Your task to perform on an android device: toggle data saver in the chrome app Image 0: 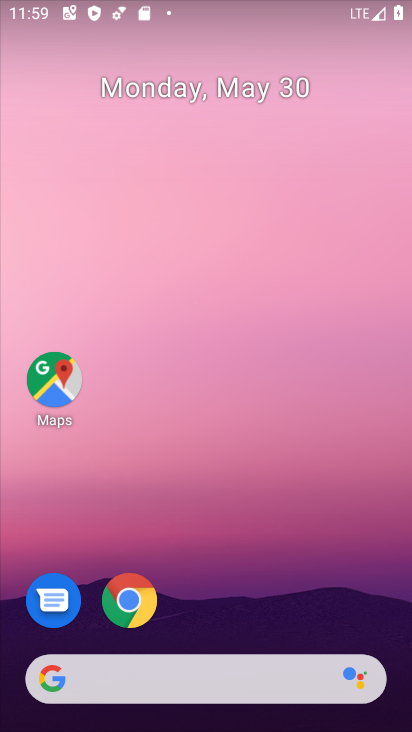
Step 0: click (130, 604)
Your task to perform on an android device: toggle data saver in the chrome app Image 1: 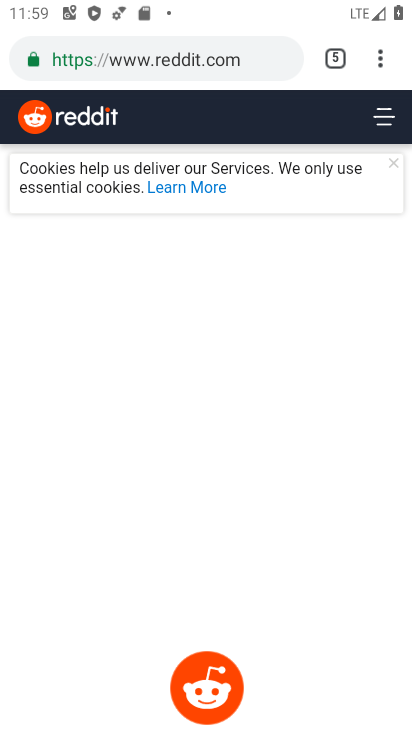
Step 1: click (380, 64)
Your task to perform on an android device: toggle data saver in the chrome app Image 2: 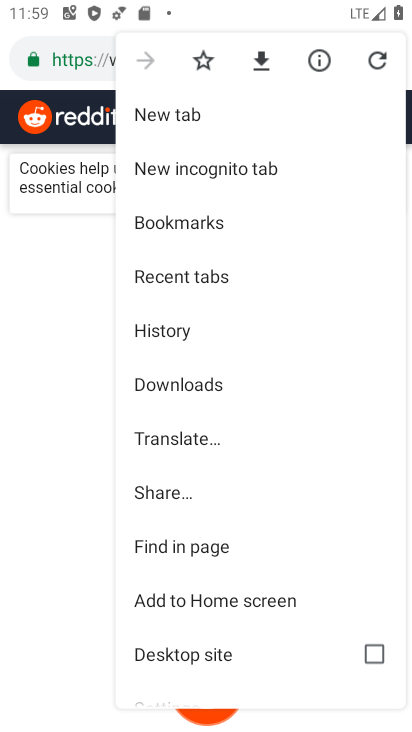
Step 2: drag from (181, 664) to (182, 283)
Your task to perform on an android device: toggle data saver in the chrome app Image 3: 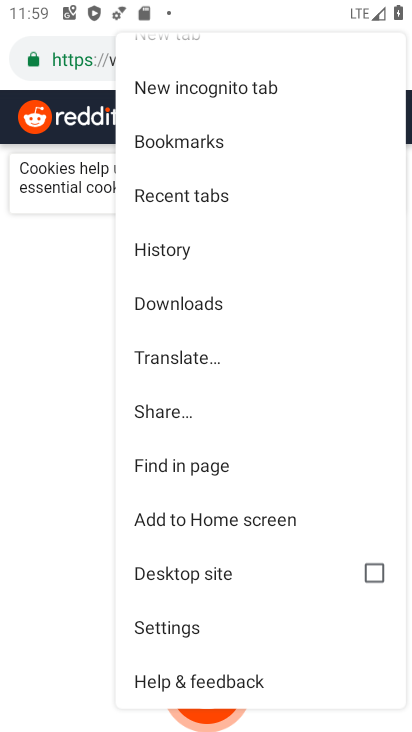
Step 3: click (159, 623)
Your task to perform on an android device: toggle data saver in the chrome app Image 4: 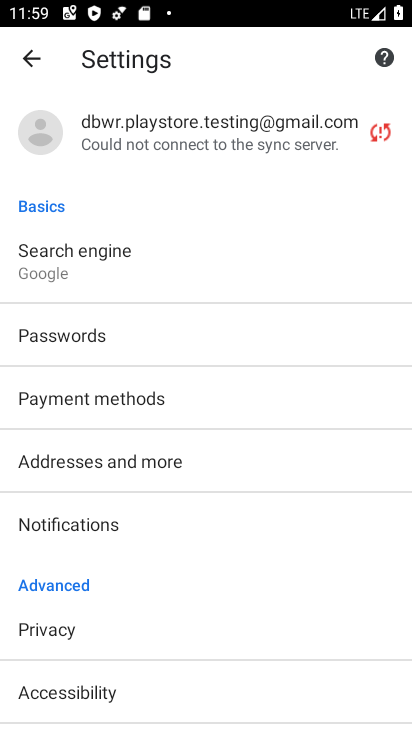
Step 4: drag from (120, 698) to (120, 260)
Your task to perform on an android device: toggle data saver in the chrome app Image 5: 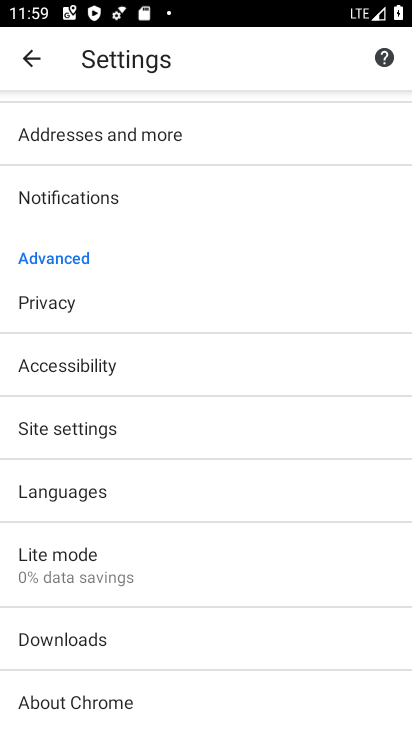
Step 5: click (66, 564)
Your task to perform on an android device: toggle data saver in the chrome app Image 6: 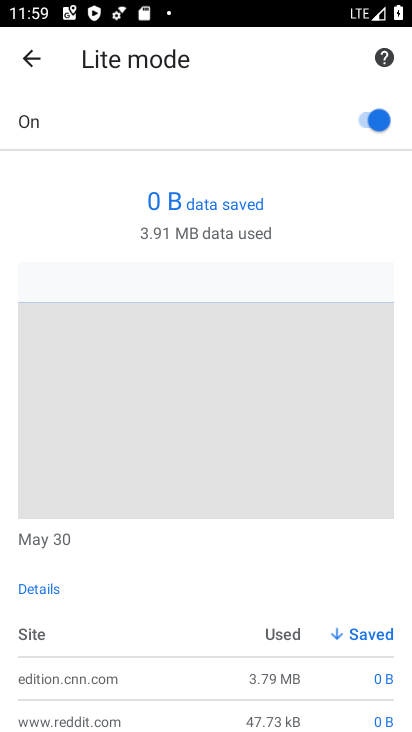
Step 6: click (367, 122)
Your task to perform on an android device: toggle data saver in the chrome app Image 7: 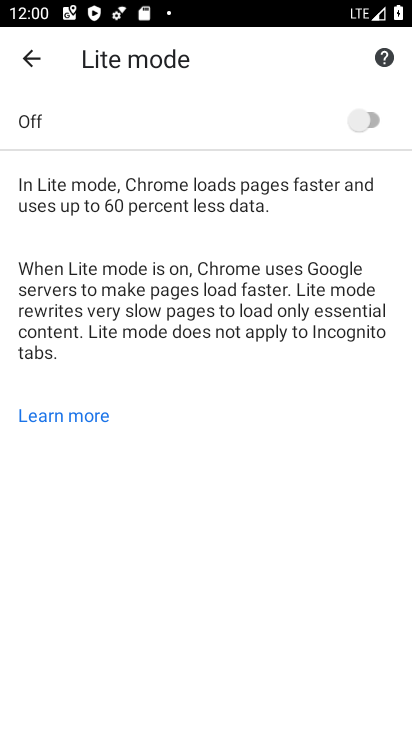
Step 7: task complete